Your task to perform on an android device: Open Google Maps Image 0: 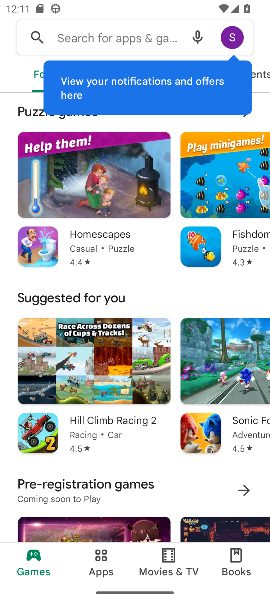
Step 0: press home button
Your task to perform on an android device: Open Google Maps Image 1: 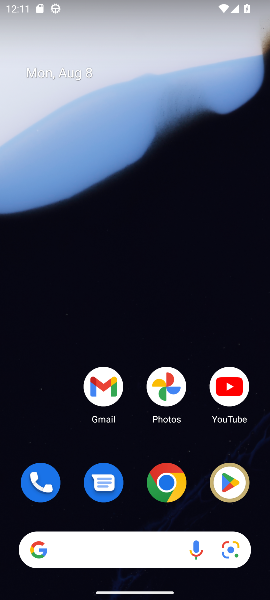
Step 1: drag from (132, 544) to (96, 69)
Your task to perform on an android device: Open Google Maps Image 2: 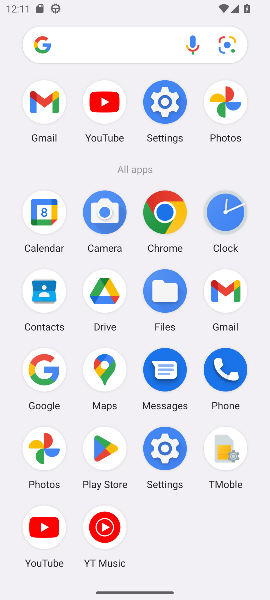
Step 2: click (99, 378)
Your task to perform on an android device: Open Google Maps Image 3: 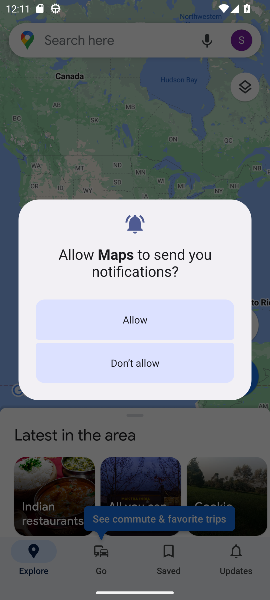
Step 3: click (181, 355)
Your task to perform on an android device: Open Google Maps Image 4: 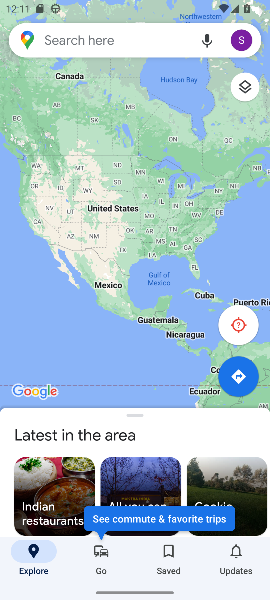
Step 4: task complete